Your task to perform on an android device: check android version Image 0: 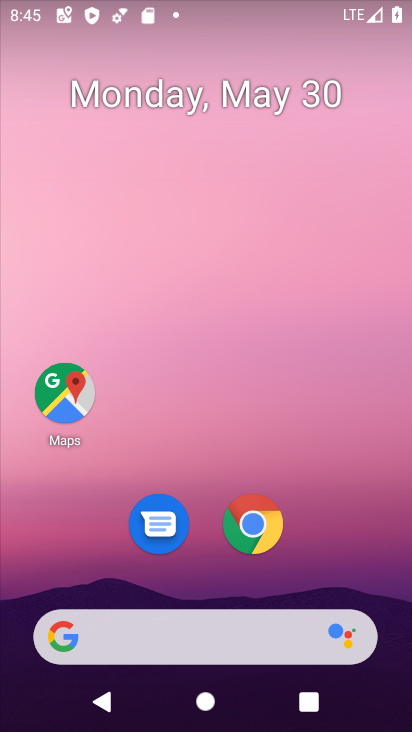
Step 0: drag from (337, 536) to (328, 27)
Your task to perform on an android device: check android version Image 1: 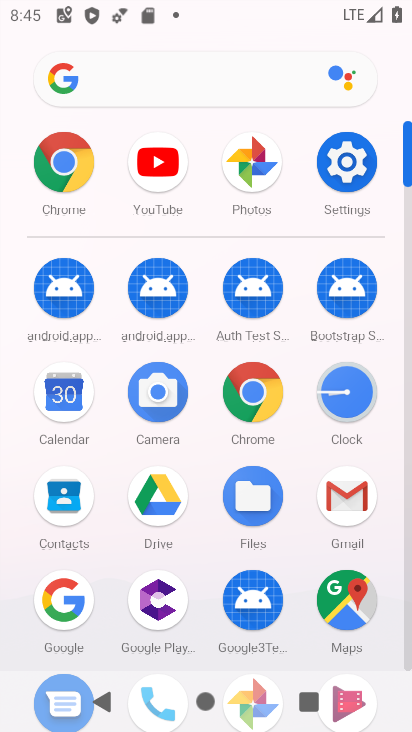
Step 1: click (359, 142)
Your task to perform on an android device: check android version Image 2: 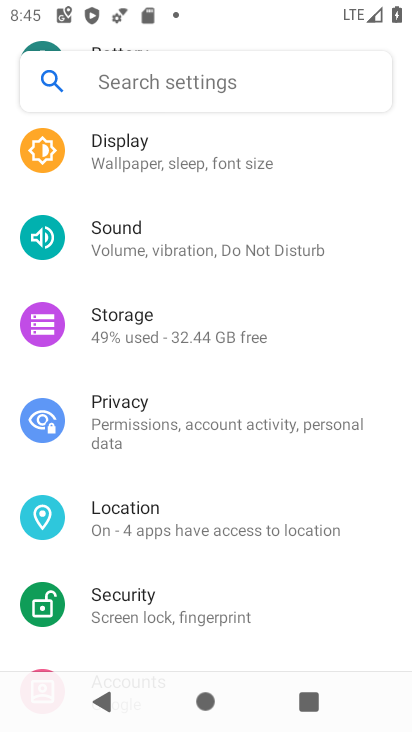
Step 2: drag from (244, 565) to (214, 9)
Your task to perform on an android device: check android version Image 3: 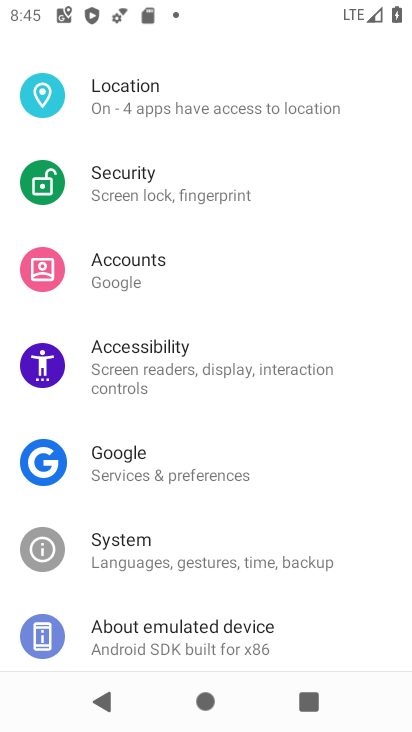
Step 3: click (143, 625)
Your task to perform on an android device: check android version Image 4: 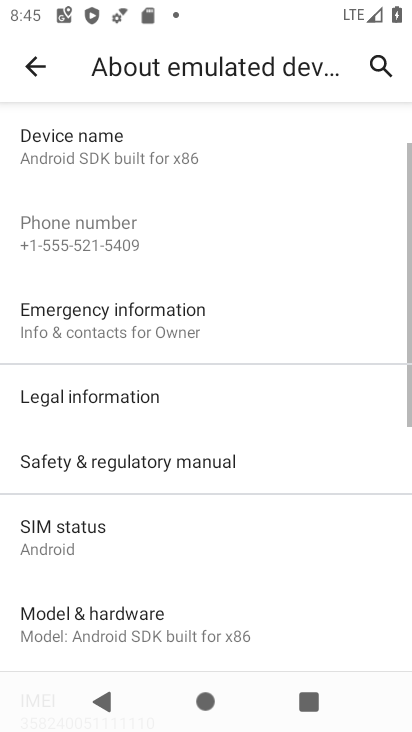
Step 4: drag from (277, 527) to (287, 155)
Your task to perform on an android device: check android version Image 5: 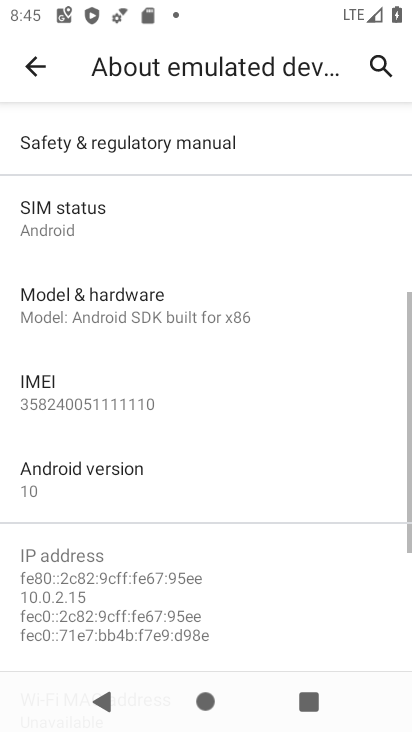
Step 5: click (216, 469)
Your task to perform on an android device: check android version Image 6: 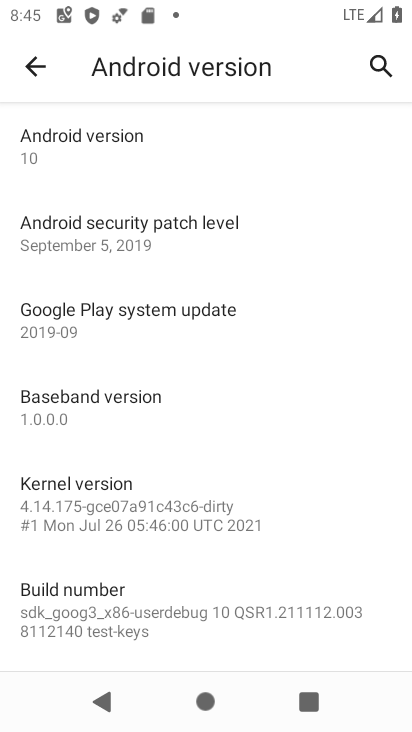
Step 6: task complete